Your task to perform on an android device: turn off notifications in google photos Image 0: 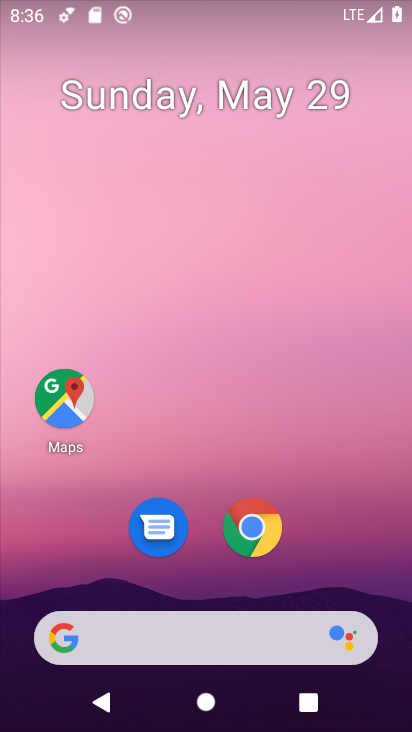
Step 0: drag from (203, 576) to (207, 108)
Your task to perform on an android device: turn off notifications in google photos Image 1: 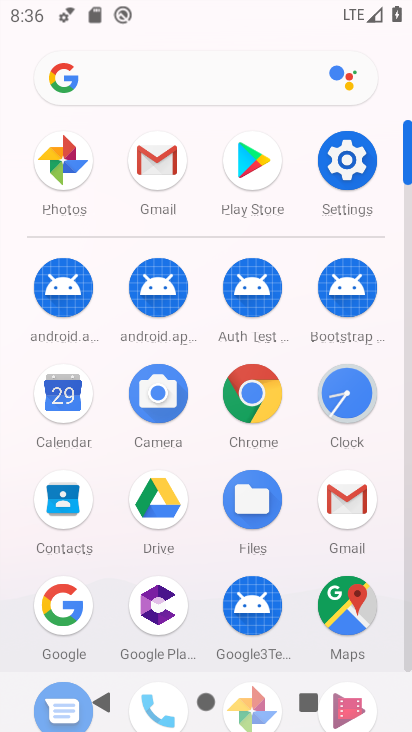
Step 1: drag from (198, 570) to (193, 171)
Your task to perform on an android device: turn off notifications in google photos Image 2: 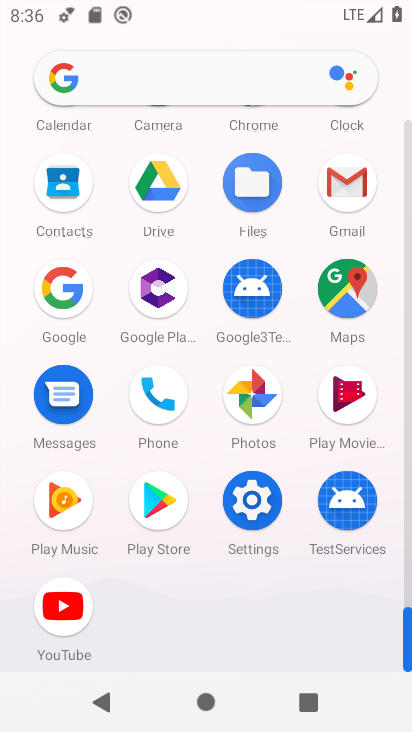
Step 2: click (249, 388)
Your task to perform on an android device: turn off notifications in google photos Image 3: 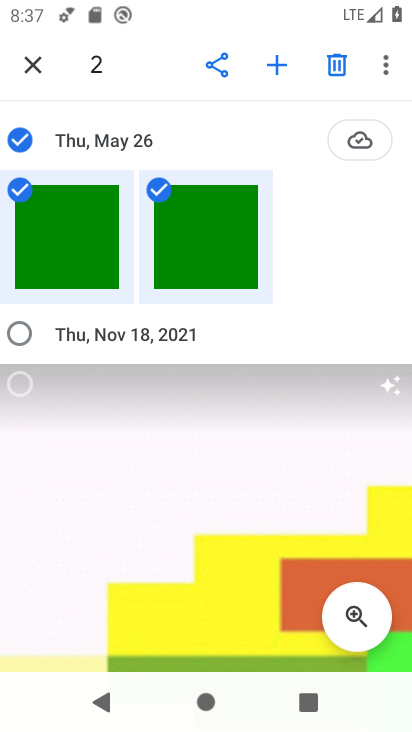
Step 3: click (28, 59)
Your task to perform on an android device: turn off notifications in google photos Image 4: 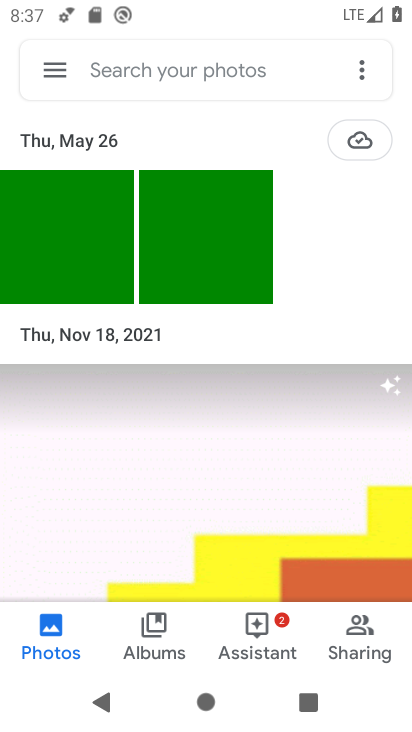
Step 4: click (45, 77)
Your task to perform on an android device: turn off notifications in google photos Image 5: 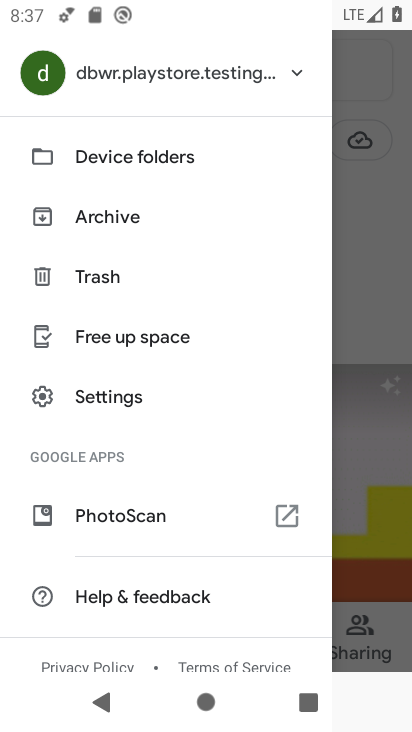
Step 5: click (145, 380)
Your task to perform on an android device: turn off notifications in google photos Image 6: 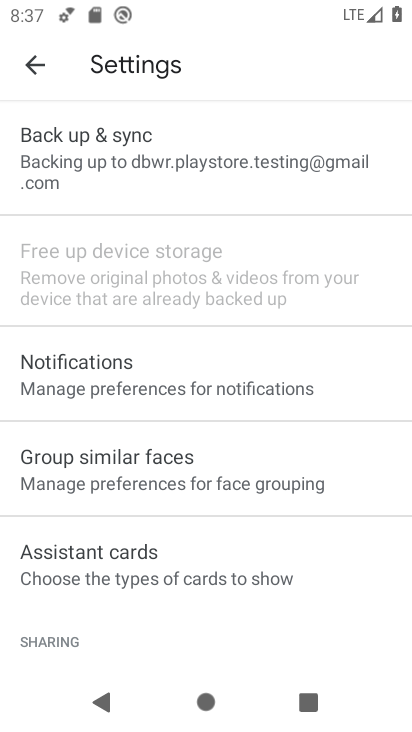
Step 6: click (118, 383)
Your task to perform on an android device: turn off notifications in google photos Image 7: 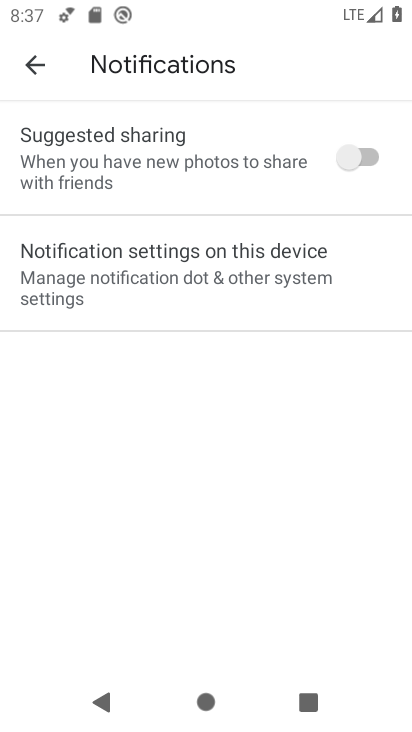
Step 7: click (111, 261)
Your task to perform on an android device: turn off notifications in google photos Image 8: 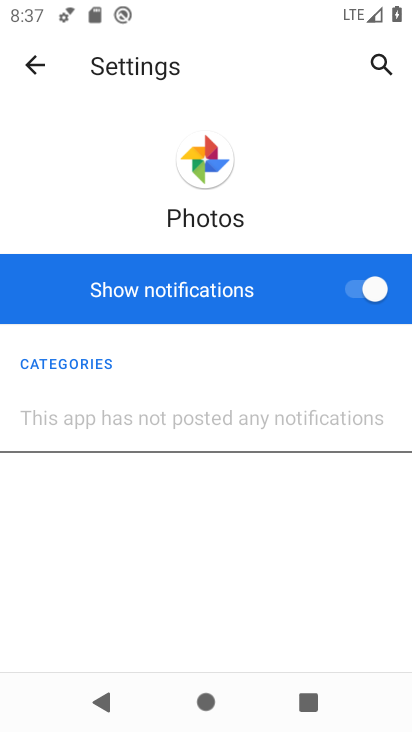
Step 8: click (355, 276)
Your task to perform on an android device: turn off notifications in google photos Image 9: 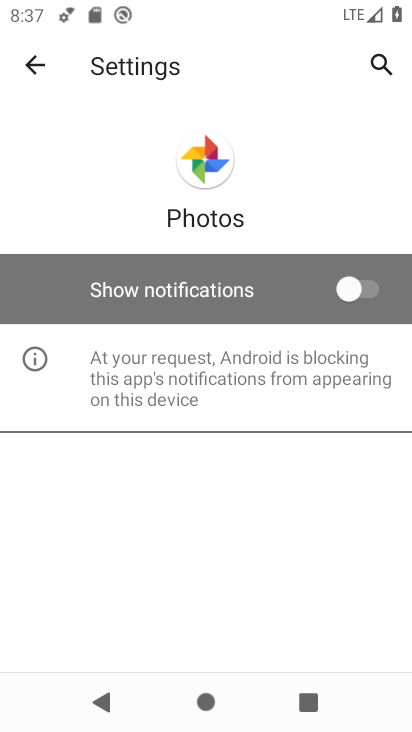
Step 9: task complete